Your task to perform on an android device: turn on notifications settings in the gmail app Image 0: 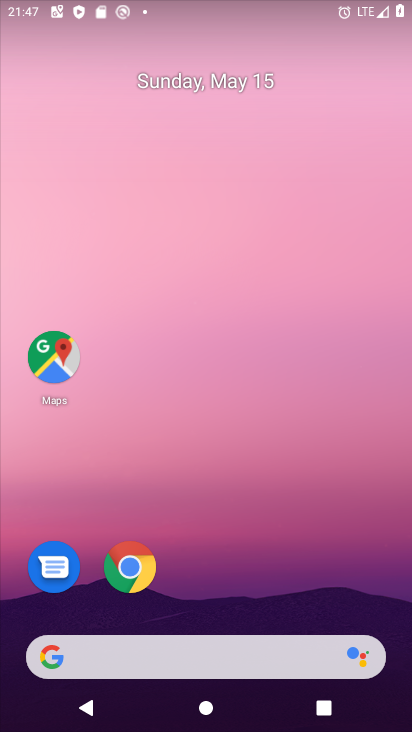
Step 0: drag from (238, 702) to (338, 80)
Your task to perform on an android device: turn on notifications settings in the gmail app Image 1: 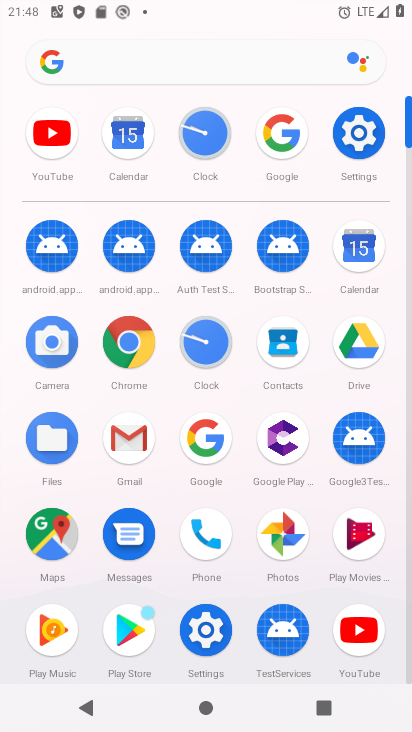
Step 1: click (142, 425)
Your task to perform on an android device: turn on notifications settings in the gmail app Image 2: 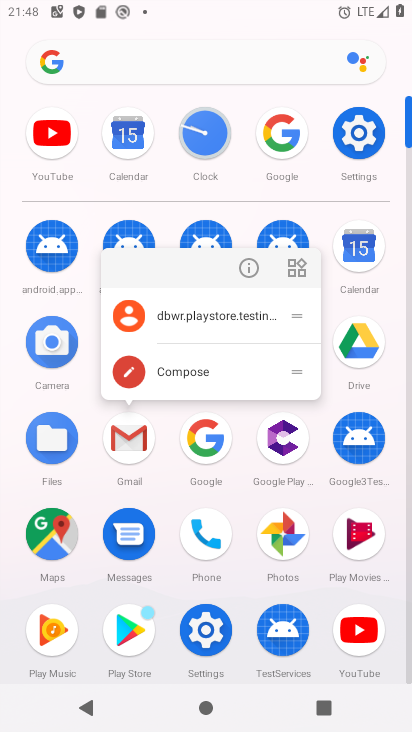
Step 2: click (241, 271)
Your task to perform on an android device: turn on notifications settings in the gmail app Image 3: 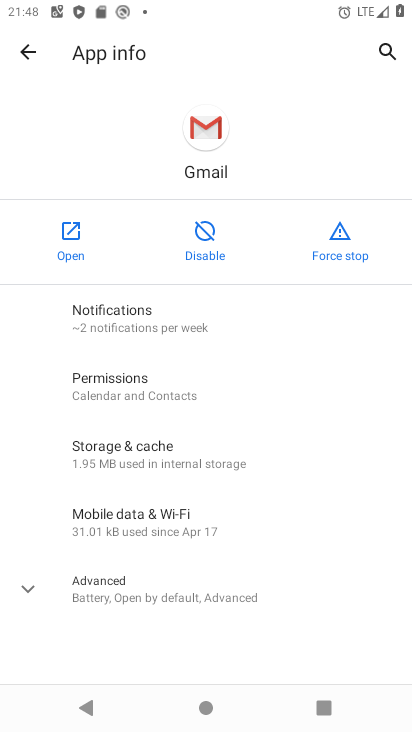
Step 3: click (198, 314)
Your task to perform on an android device: turn on notifications settings in the gmail app Image 4: 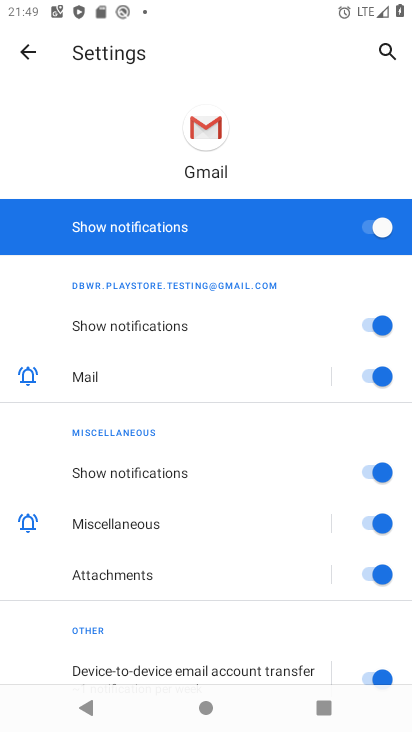
Step 4: task complete